Your task to perform on an android device: Go to ESPN.com Image 0: 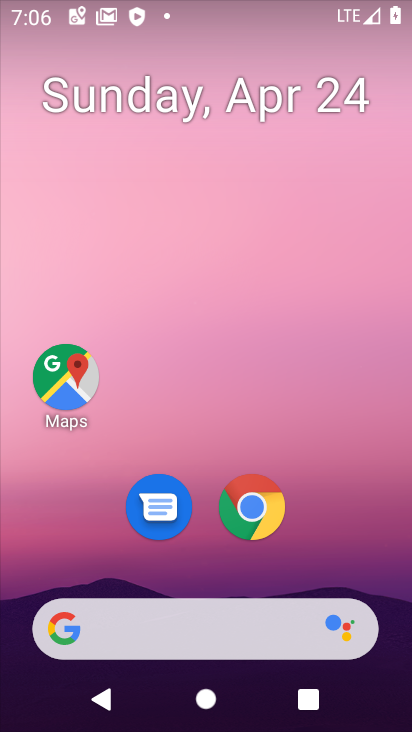
Step 0: drag from (306, 546) to (269, 0)
Your task to perform on an android device: Go to ESPN.com Image 1: 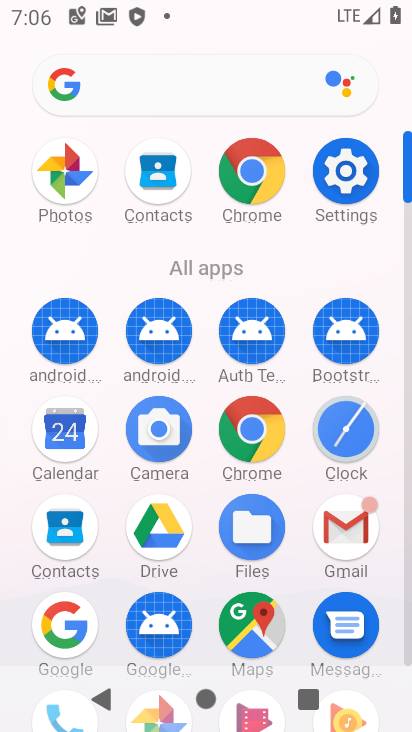
Step 1: click (265, 178)
Your task to perform on an android device: Go to ESPN.com Image 2: 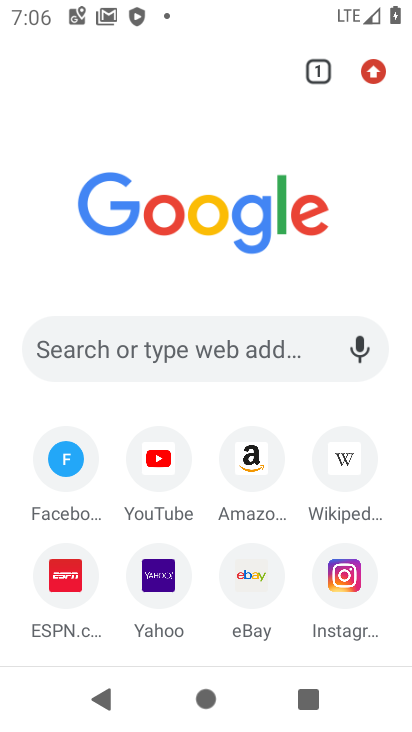
Step 2: click (60, 581)
Your task to perform on an android device: Go to ESPN.com Image 3: 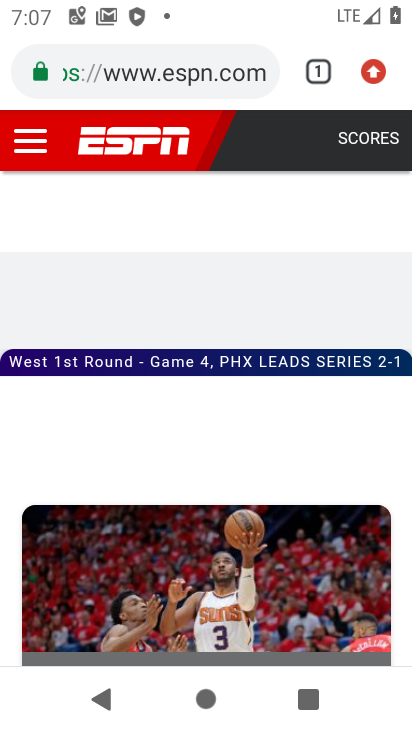
Step 3: task complete